Your task to perform on an android device: toggle translation in the chrome app Image 0: 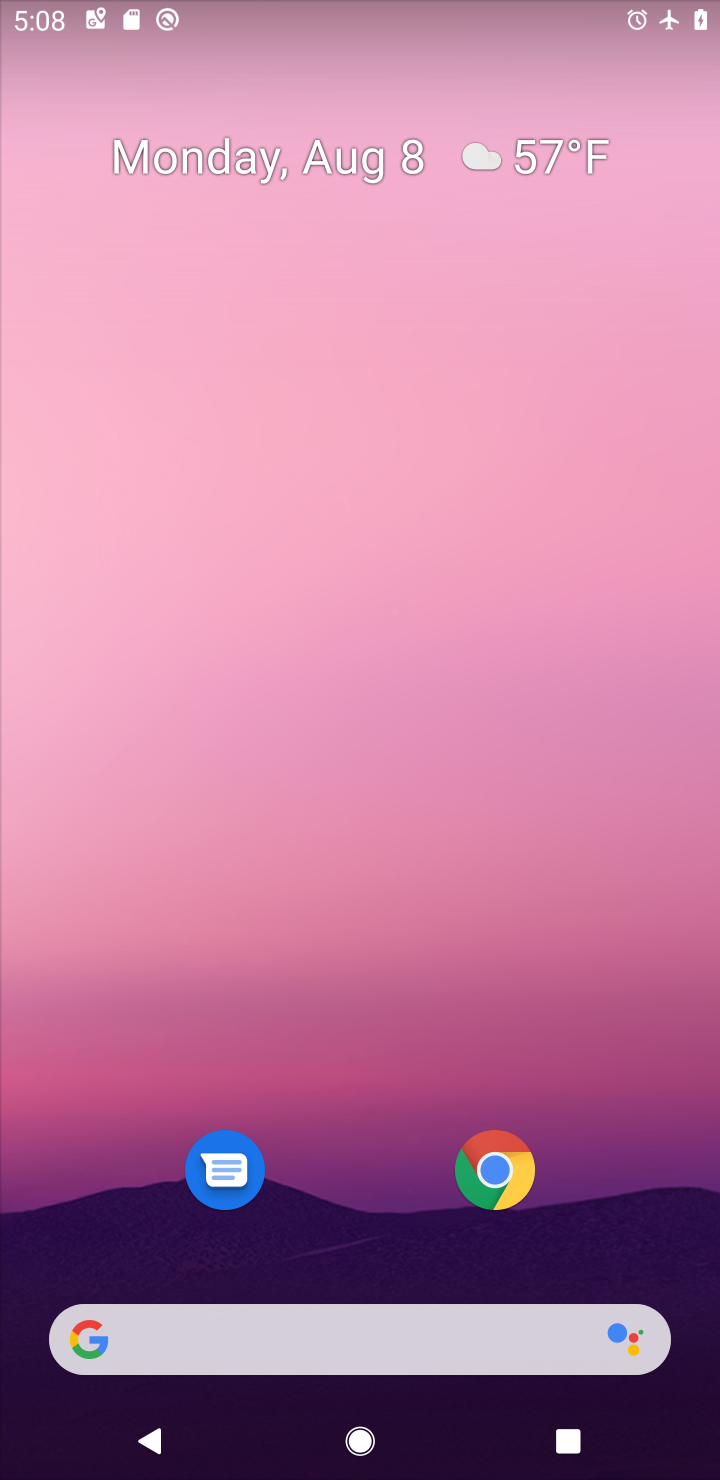
Step 0: click (537, 1158)
Your task to perform on an android device: toggle translation in the chrome app Image 1: 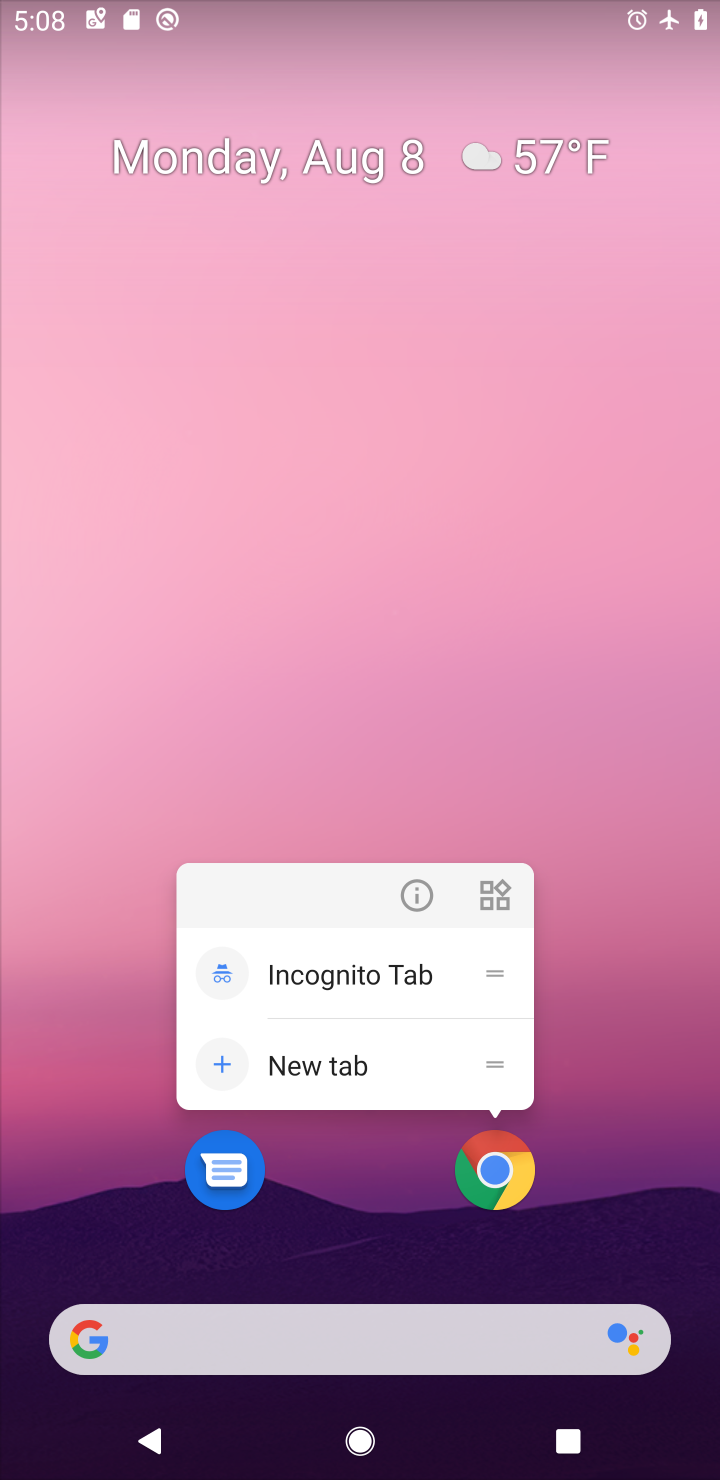
Step 1: click (530, 1163)
Your task to perform on an android device: toggle translation in the chrome app Image 2: 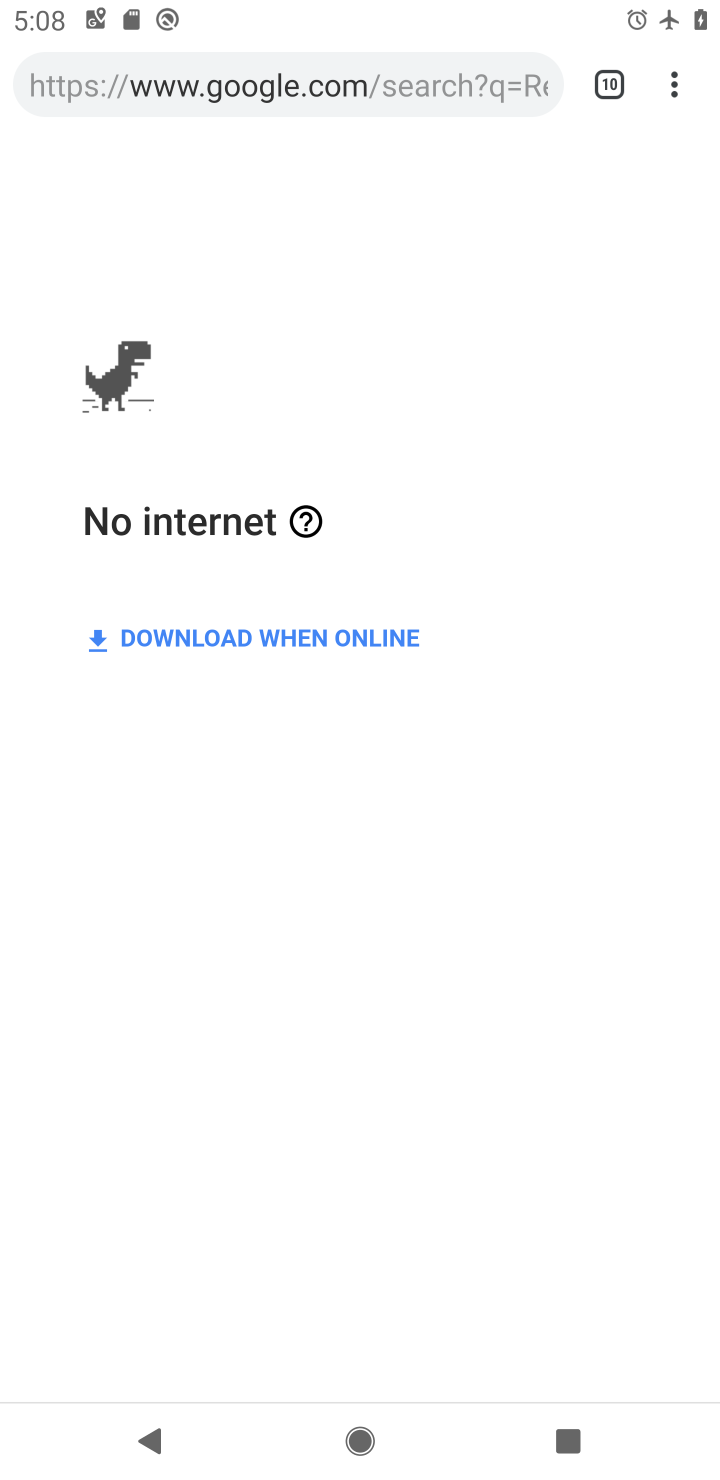
Step 2: click (670, 94)
Your task to perform on an android device: toggle translation in the chrome app Image 3: 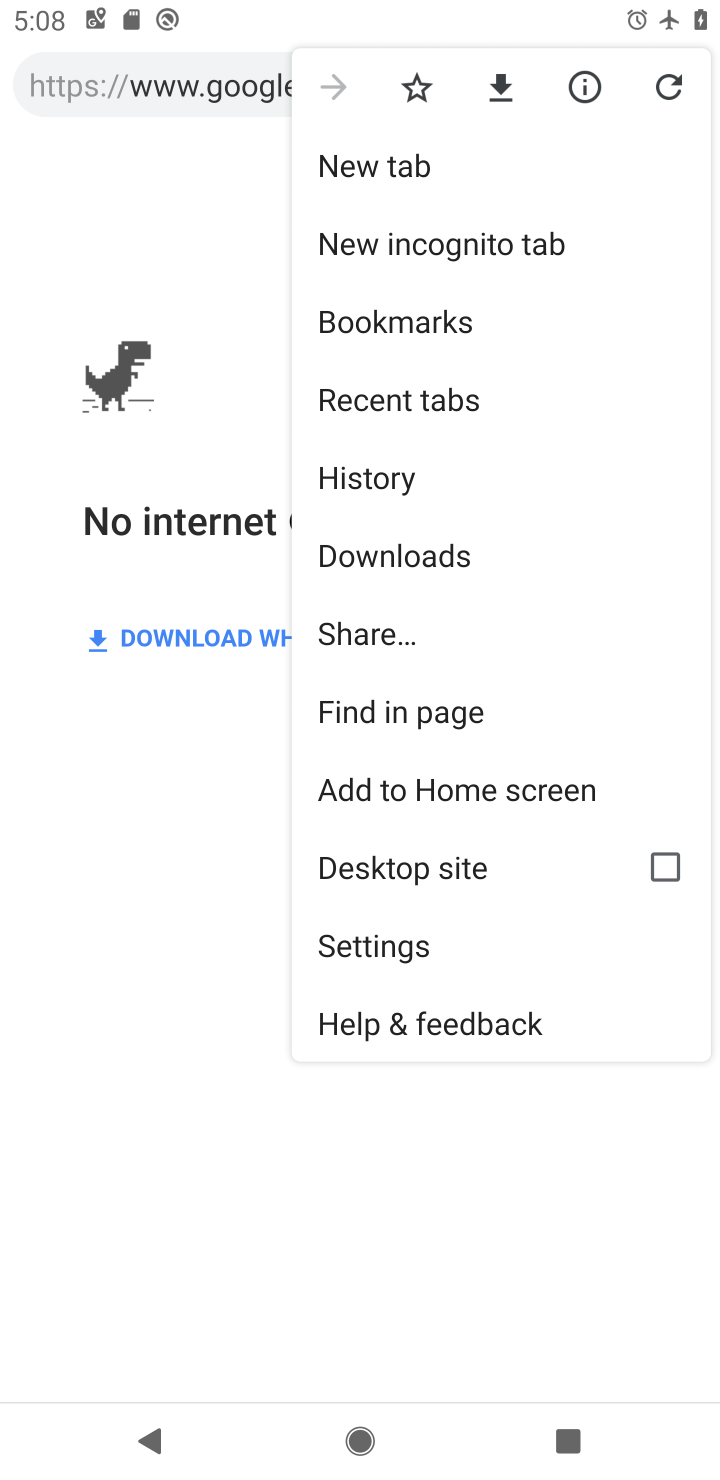
Step 3: click (386, 975)
Your task to perform on an android device: toggle translation in the chrome app Image 4: 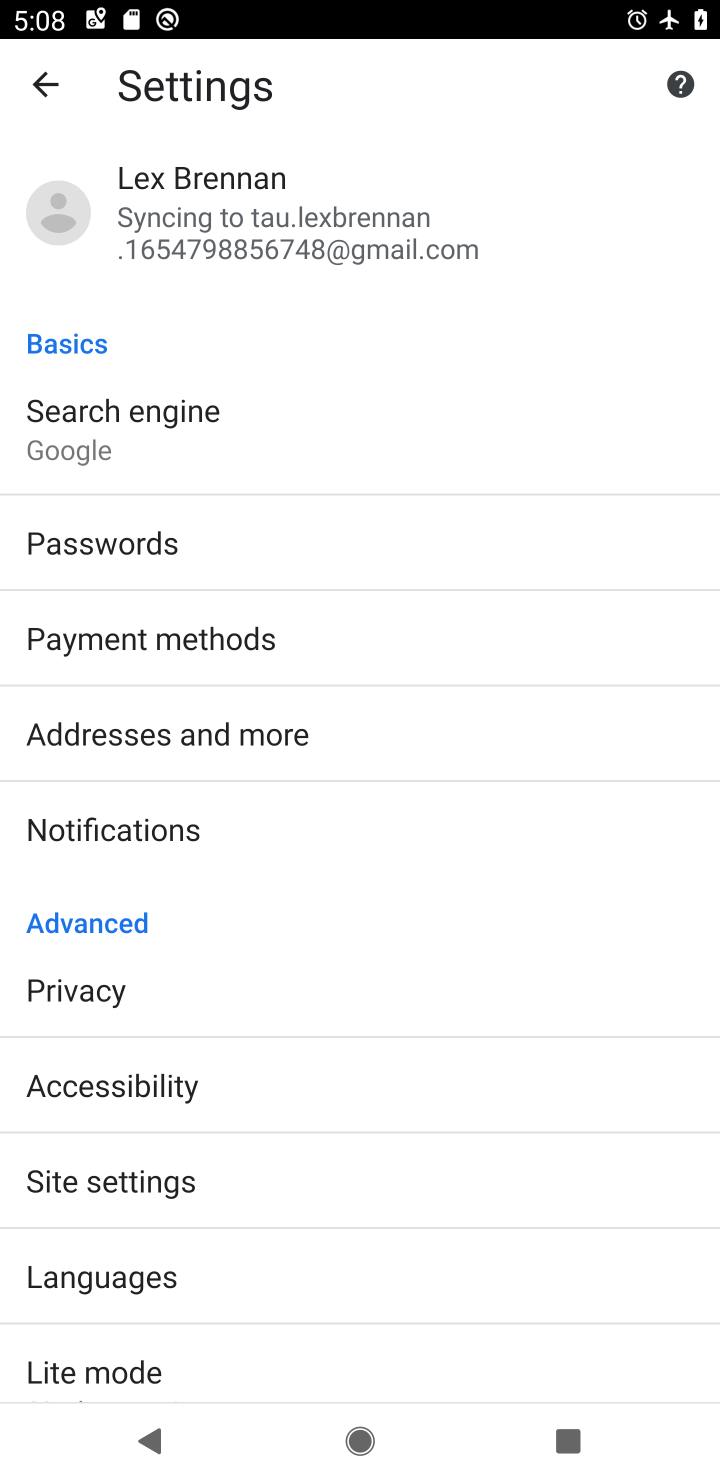
Step 4: click (207, 1274)
Your task to perform on an android device: toggle translation in the chrome app Image 5: 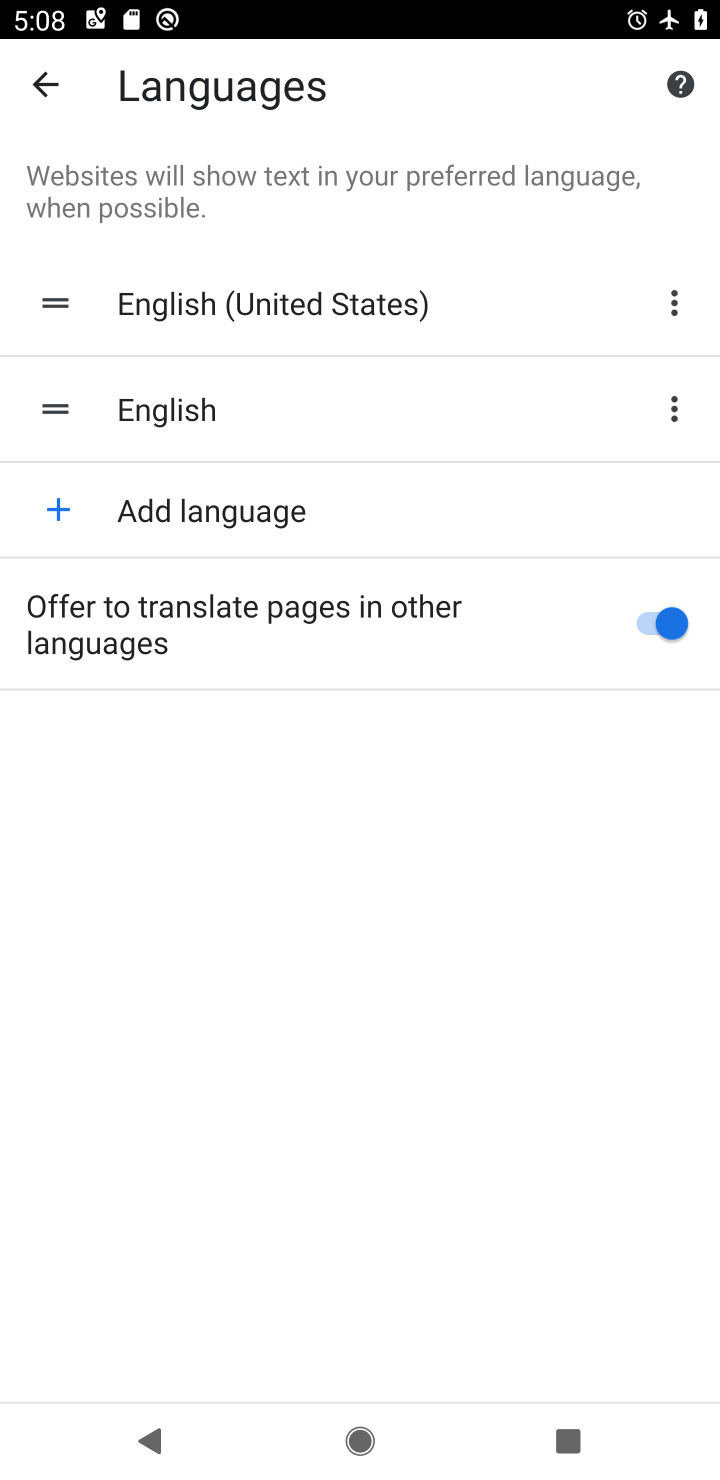
Step 5: click (648, 637)
Your task to perform on an android device: toggle translation in the chrome app Image 6: 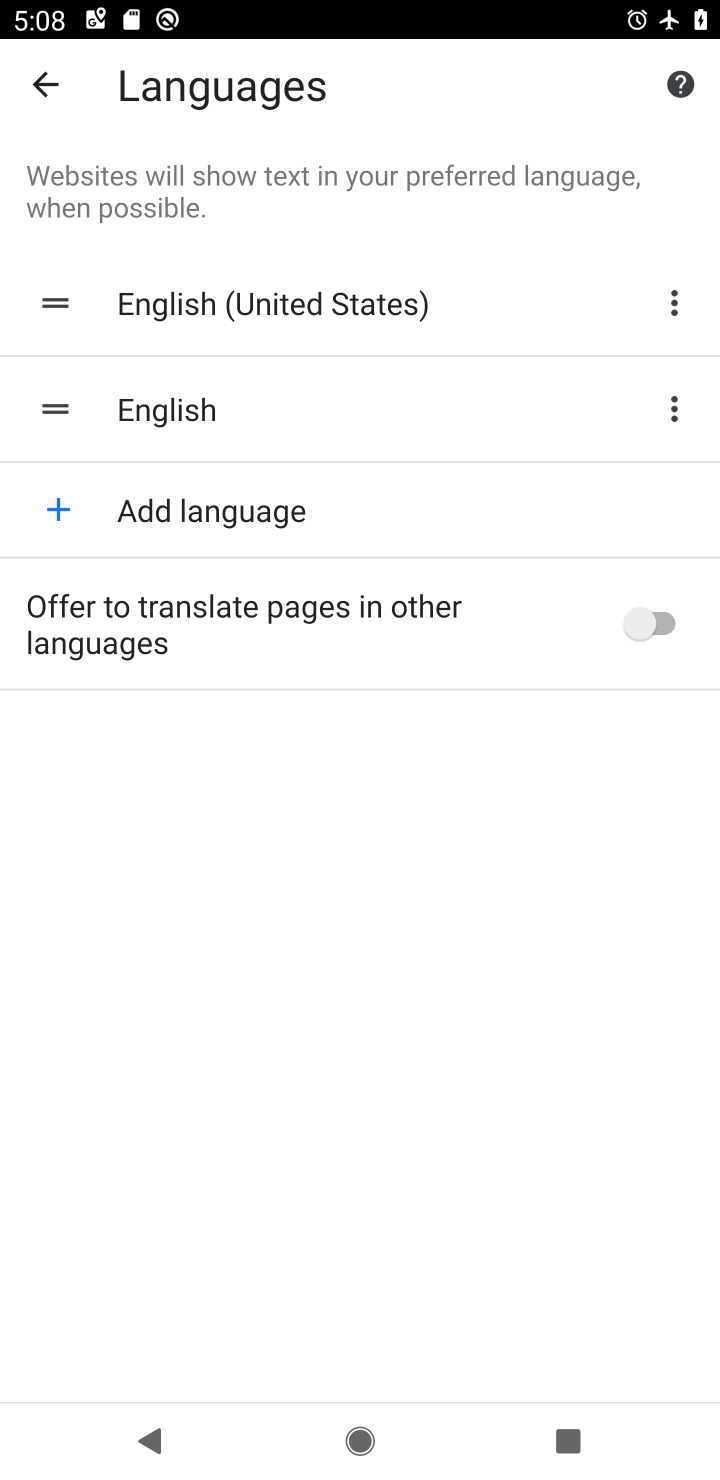
Step 6: task complete